Your task to perform on an android device: Search for "amazon basics triple a" on costco, select the first entry, and add it to the cart. Image 0: 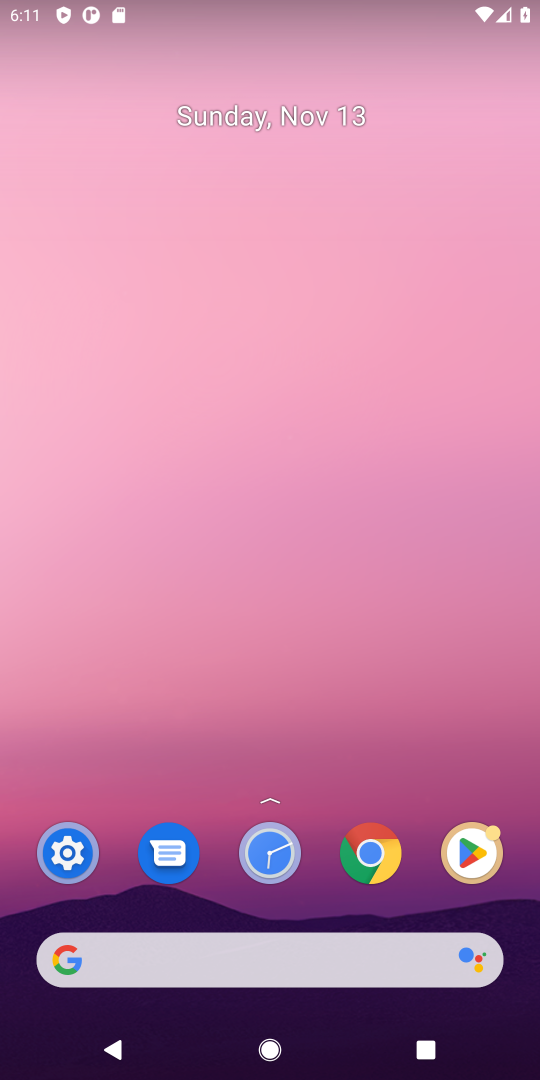
Step 0: press home button
Your task to perform on an android device: Search for "amazon basics triple a" on costco, select the first entry, and add it to the cart. Image 1: 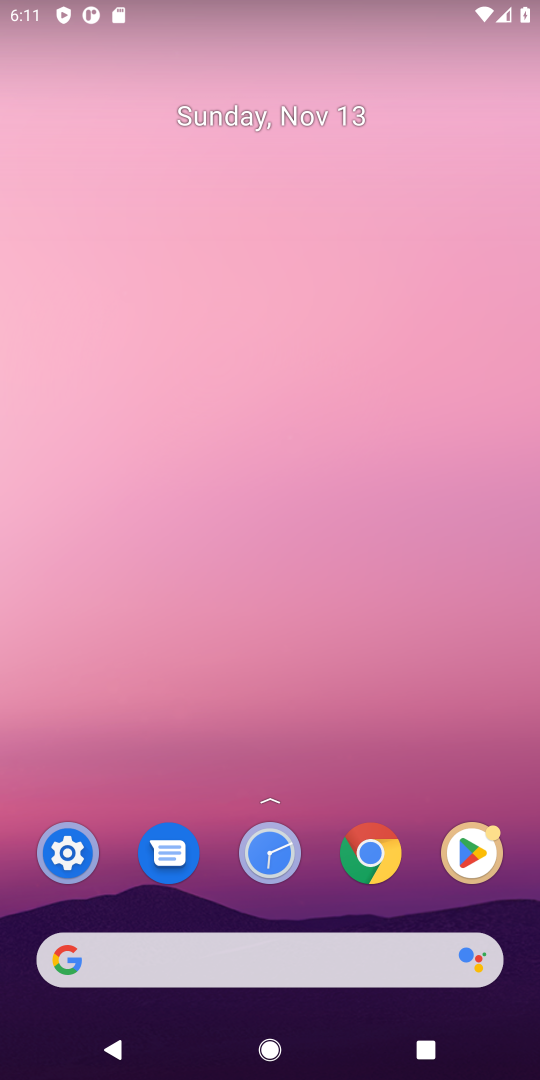
Step 1: click (97, 964)
Your task to perform on an android device: Search for "amazon basics triple a" on costco, select the first entry, and add it to the cart. Image 2: 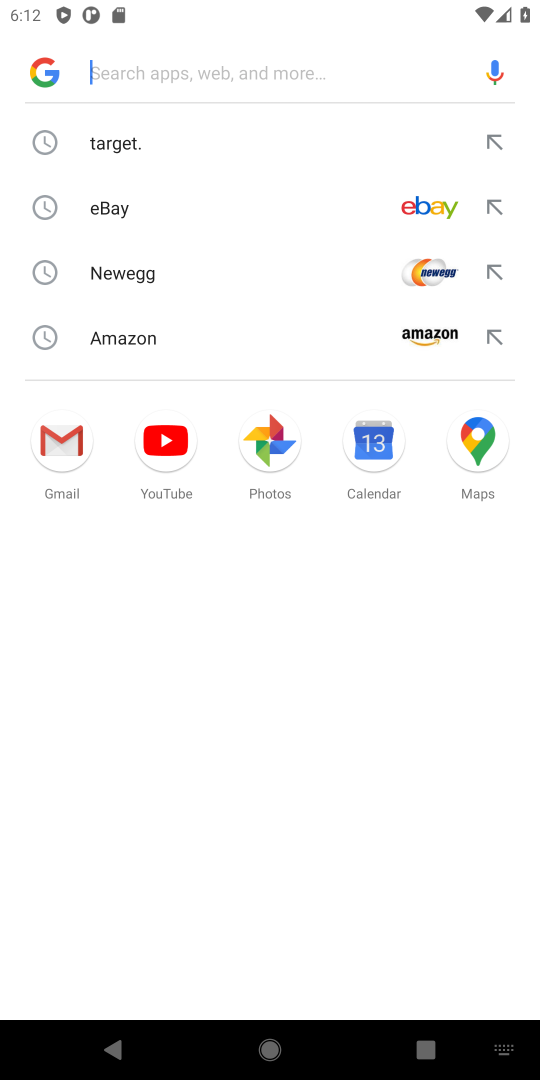
Step 2: press enter
Your task to perform on an android device: Search for "amazon basics triple a" on costco, select the first entry, and add it to the cart. Image 3: 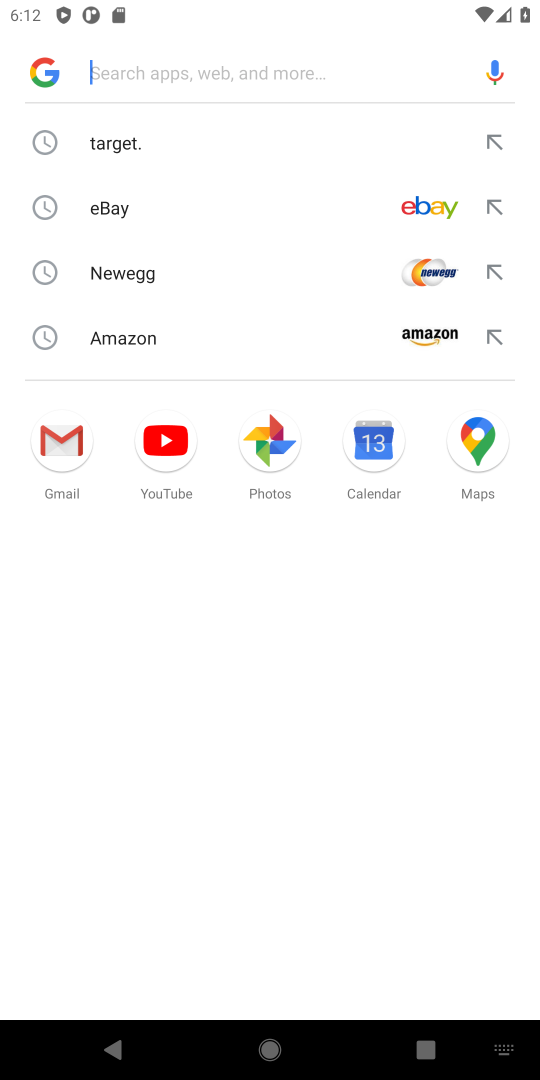
Step 3: type "costco"
Your task to perform on an android device: Search for "amazon basics triple a" on costco, select the first entry, and add it to the cart. Image 4: 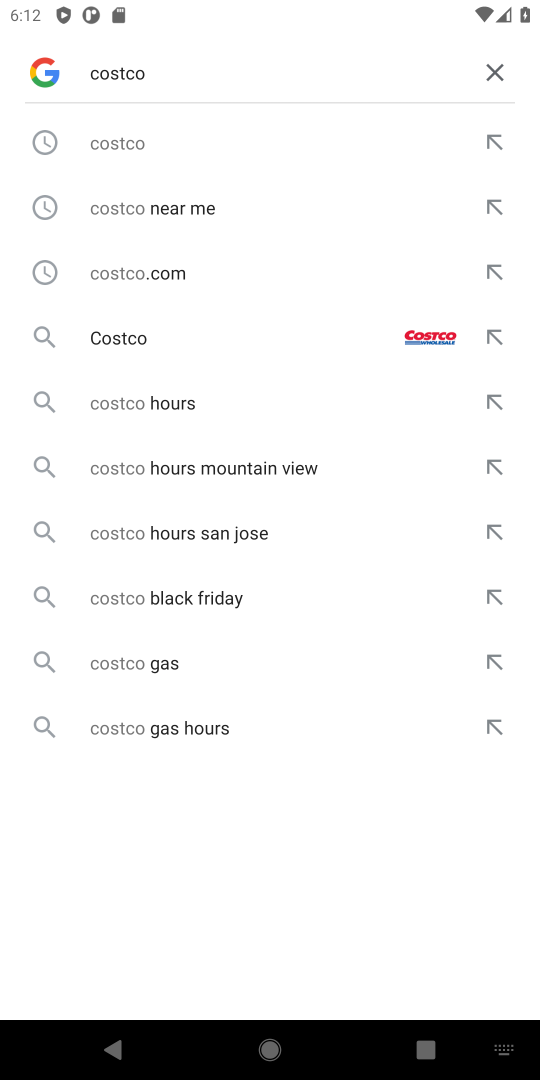
Step 4: press enter
Your task to perform on an android device: Search for "amazon basics triple a" on costco, select the first entry, and add it to the cart. Image 5: 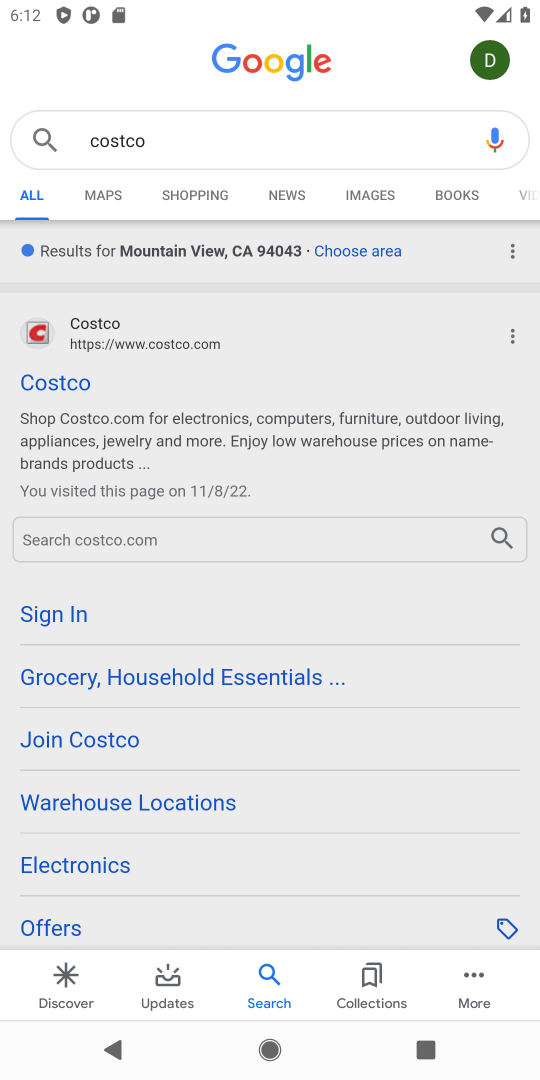
Step 5: click (31, 387)
Your task to perform on an android device: Search for "amazon basics triple a" on costco, select the first entry, and add it to the cart. Image 6: 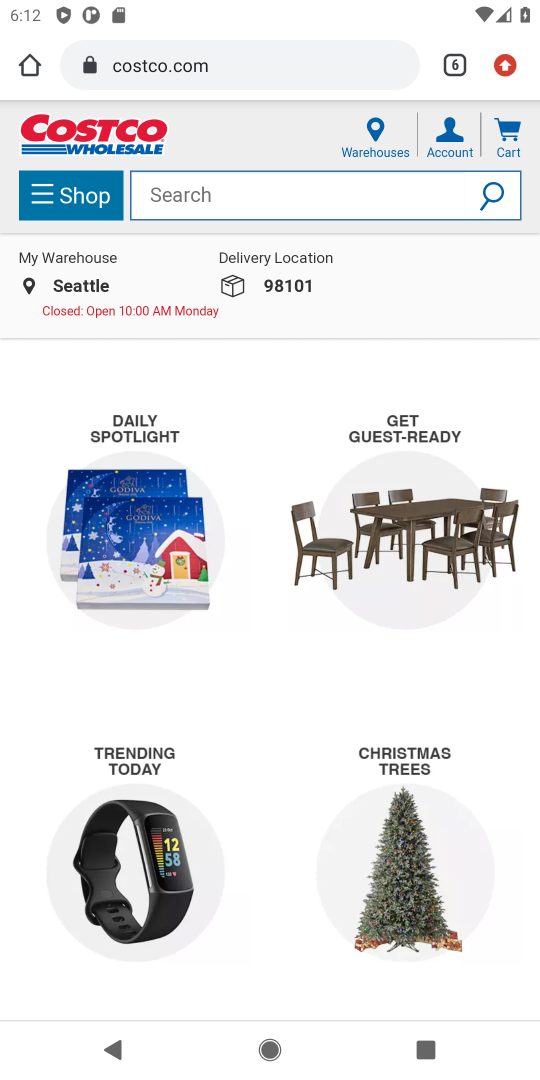
Step 6: click (188, 204)
Your task to perform on an android device: Search for "amazon basics triple a" on costco, select the first entry, and add it to the cart. Image 7: 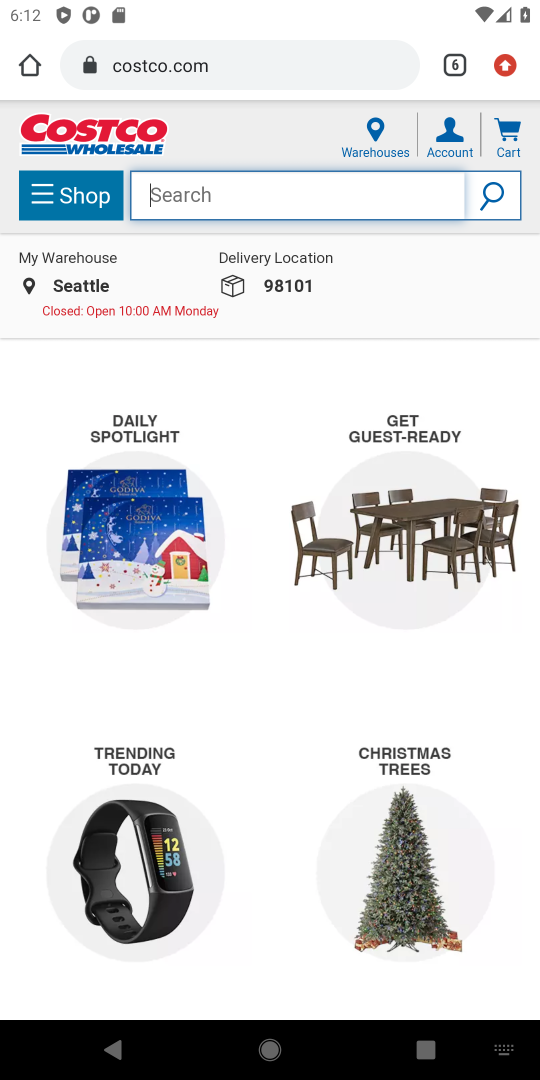
Step 7: type "amazon basics triple a"
Your task to perform on an android device: Search for "amazon basics triple a" on costco, select the first entry, and add it to the cart. Image 8: 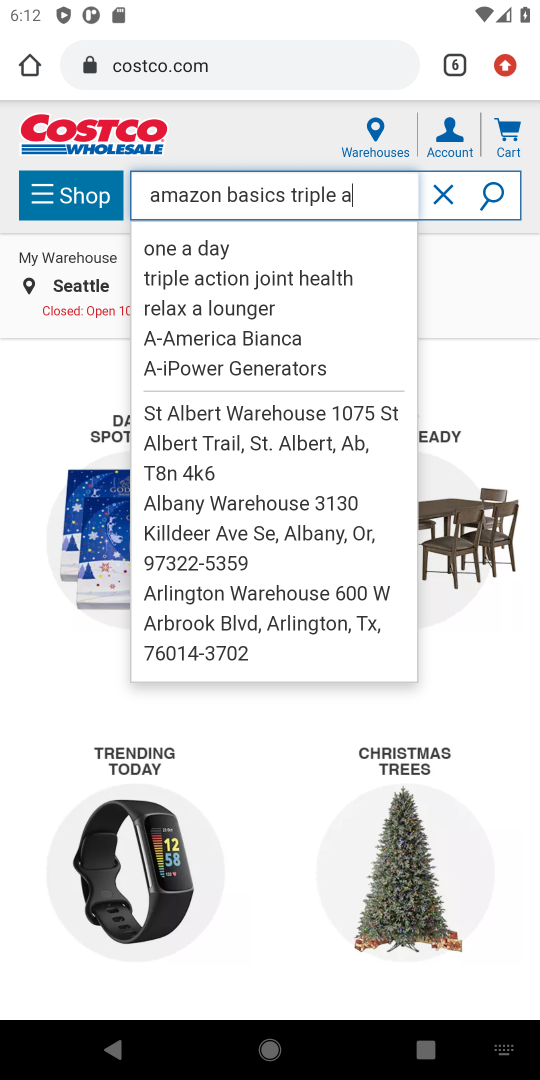
Step 8: press enter
Your task to perform on an android device: Search for "amazon basics triple a" on costco, select the first entry, and add it to the cart. Image 9: 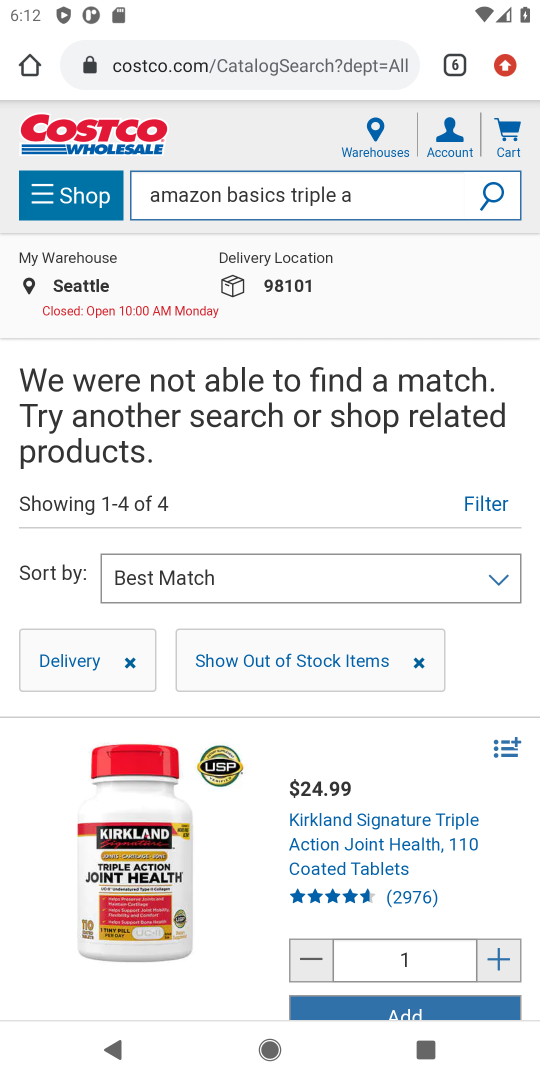
Step 9: task complete